Your task to perform on an android device: Go to display settings Image 0: 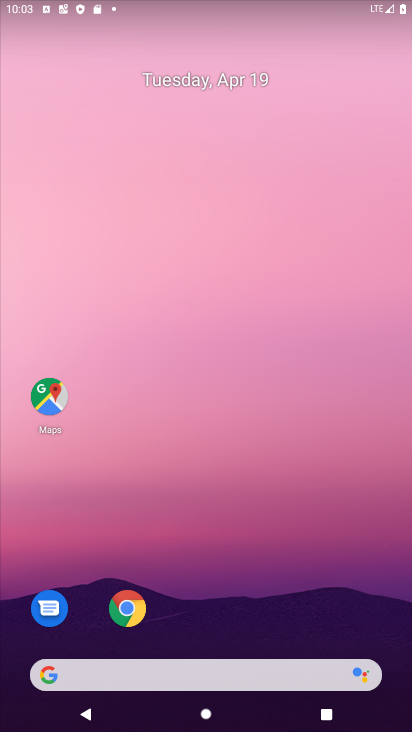
Step 0: drag from (361, 630) to (310, 266)
Your task to perform on an android device: Go to display settings Image 1: 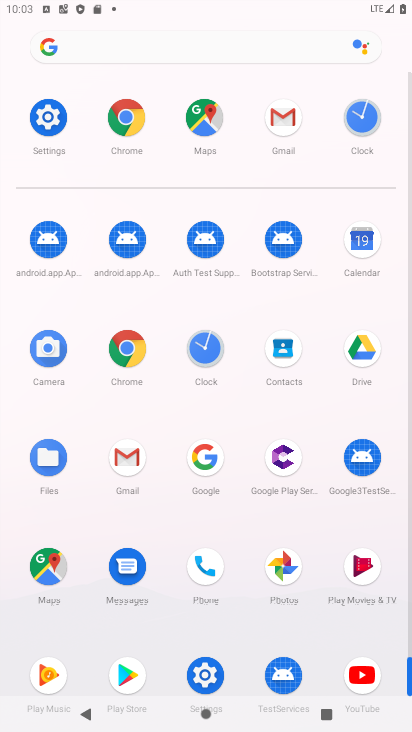
Step 1: click (205, 676)
Your task to perform on an android device: Go to display settings Image 2: 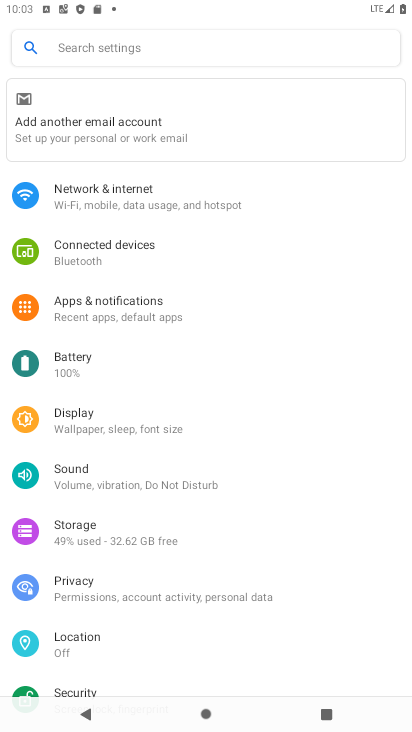
Step 2: click (67, 413)
Your task to perform on an android device: Go to display settings Image 3: 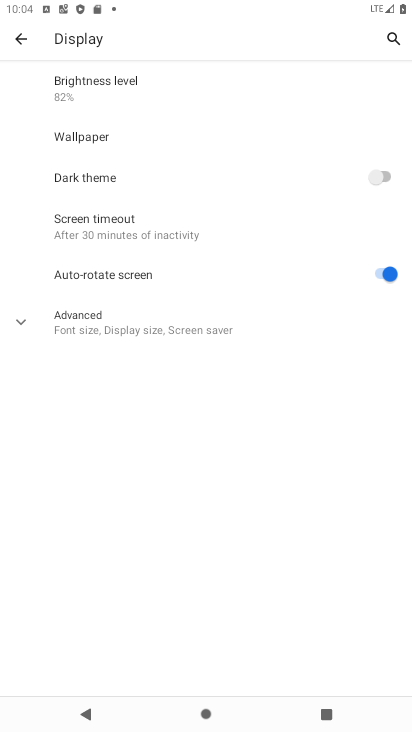
Step 3: click (27, 323)
Your task to perform on an android device: Go to display settings Image 4: 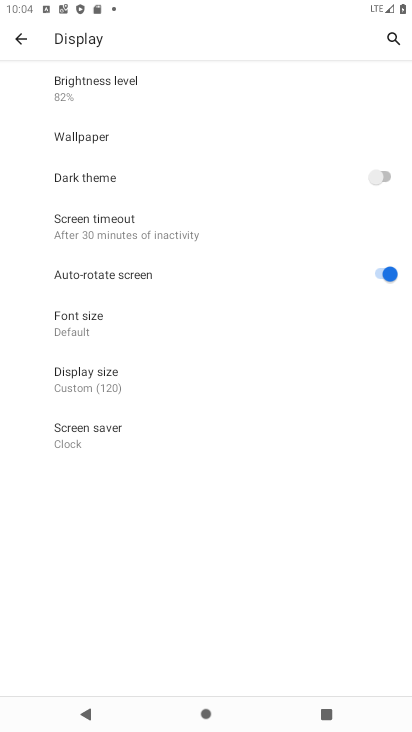
Step 4: task complete